Your task to perform on an android device: Go to wifi settings Image 0: 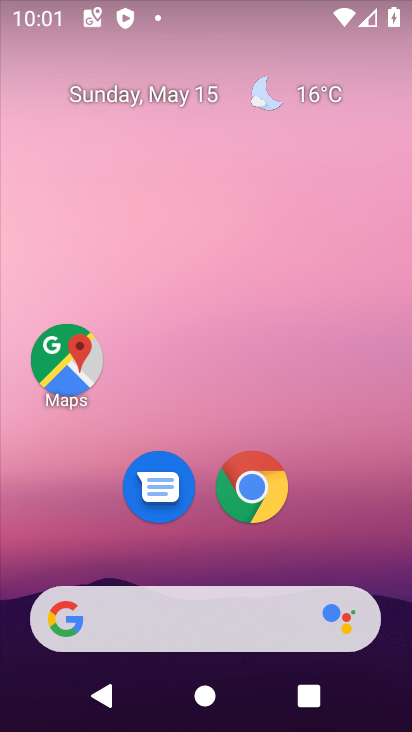
Step 0: drag from (399, 620) to (295, 18)
Your task to perform on an android device: Go to wifi settings Image 1: 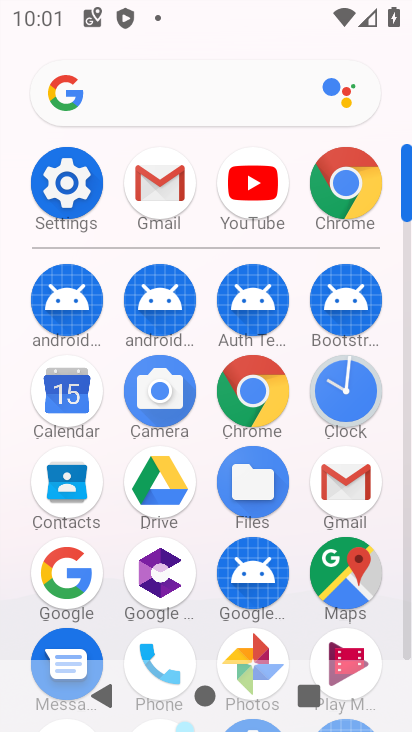
Step 1: click (408, 648)
Your task to perform on an android device: Go to wifi settings Image 2: 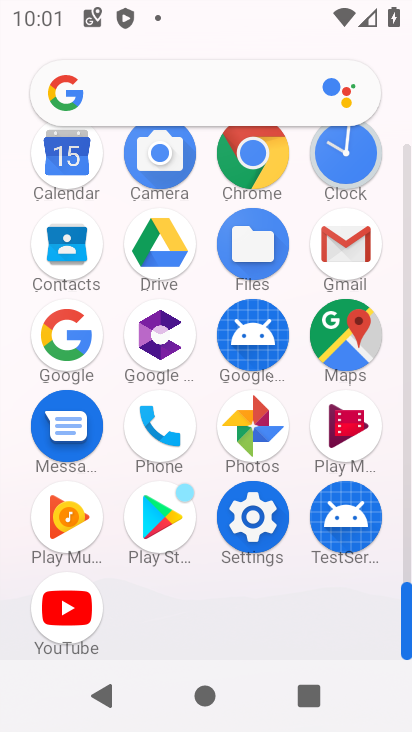
Step 2: click (252, 519)
Your task to perform on an android device: Go to wifi settings Image 3: 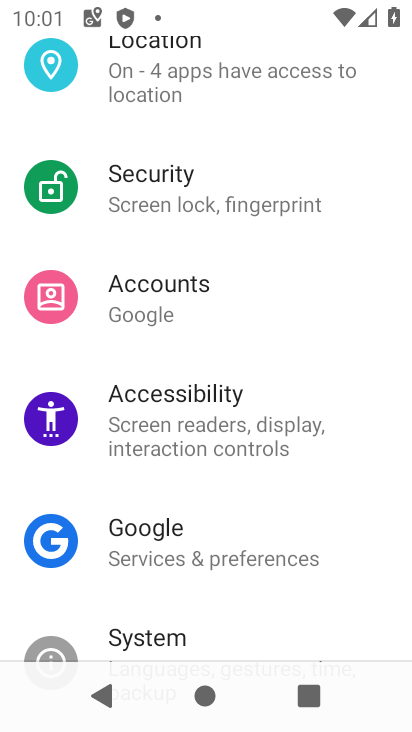
Step 3: drag from (360, 151) to (345, 422)
Your task to perform on an android device: Go to wifi settings Image 4: 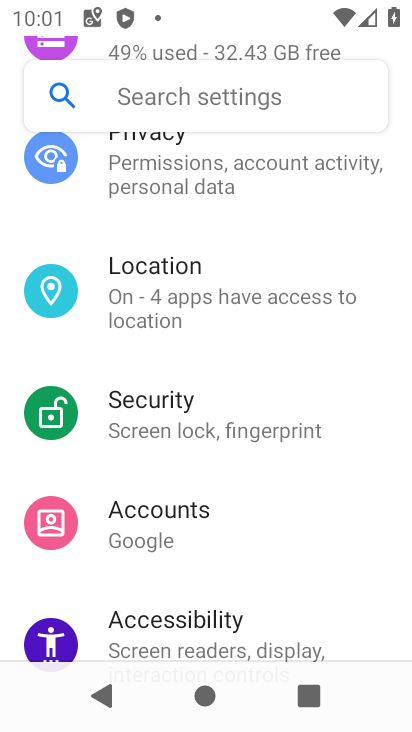
Step 4: drag from (370, 210) to (352, 471)
Your task to perform on an android device: Go to wifi settings Image 5: 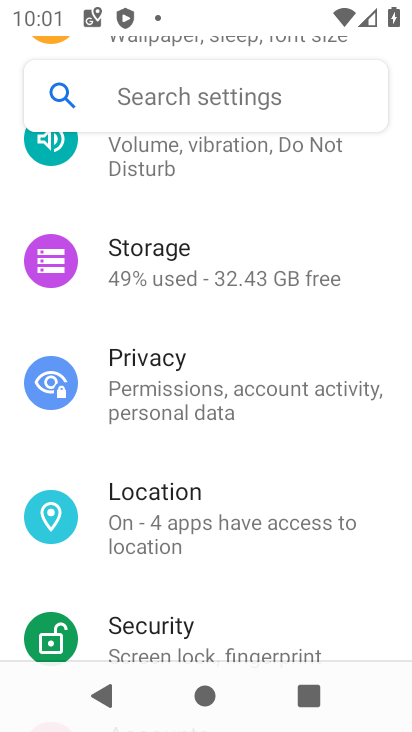
Step 5: drag from (357, 214) to (380, 478)
Your task to perform on an android device: Go to wifi settings Image 6: 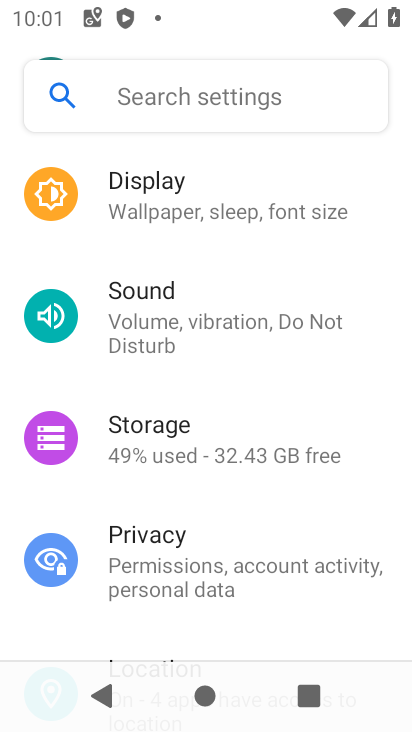
Step 6: drag from (349, 230) to (347, 467)
Your task to perform on an android device: Go to wifi settings Image 7: 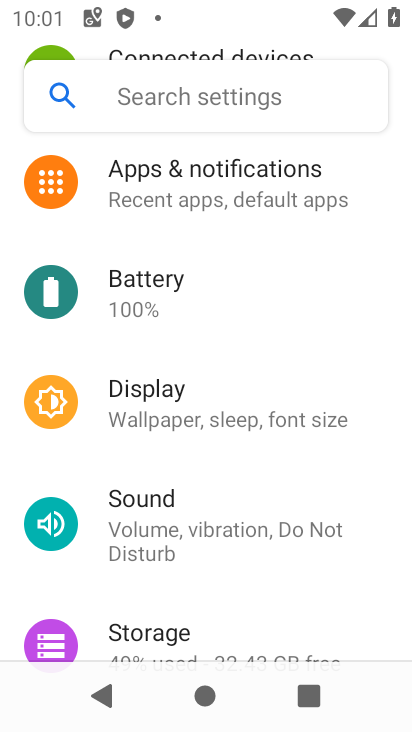
Step 7: drag from (368, 219) to (346, 528)
Your task to perform on an android device: Go to wifi settings Image 8: 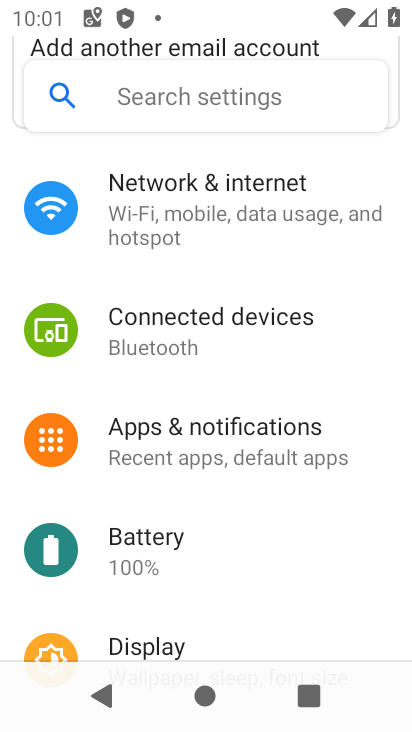
Step 8: click (141, 203)
Your task to perform on an android device: Go to wifi settings Image 9: 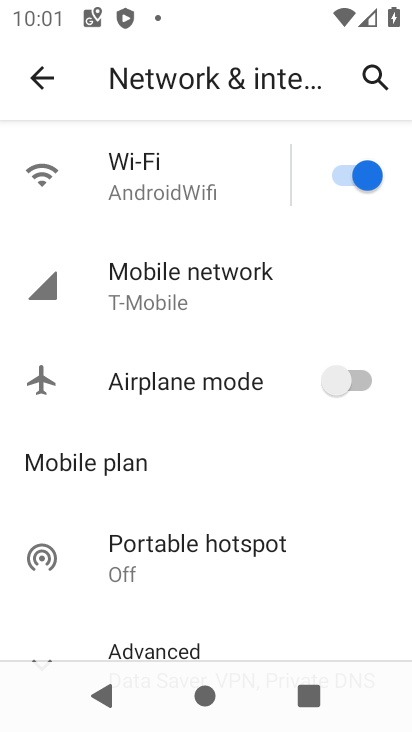
Step 9: click (59, 163)
Your task to perform on an android device: Go to wifi settings Image 10: 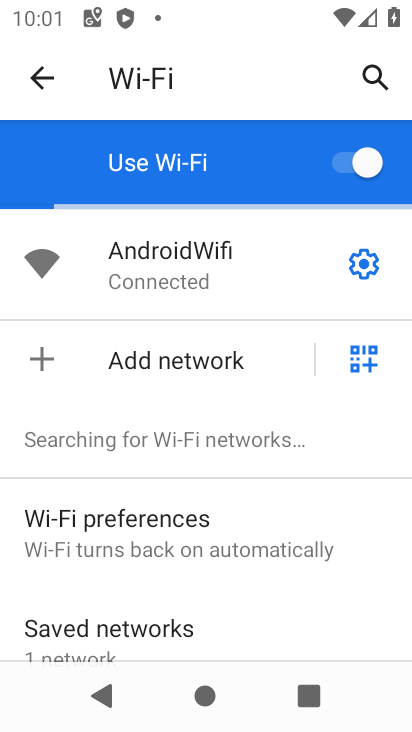
Step 10: drag from (339, 630) to (262, 228)
Your task to perform on an android device: Go to wifi settings Image 11: 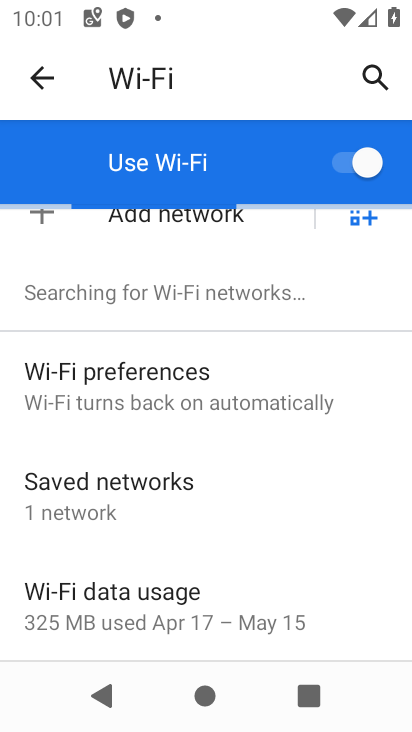
Step 11: drag from (302, 252) to (274, 636)
Your task to perform on an android device: Go to wifi settings Image 12: 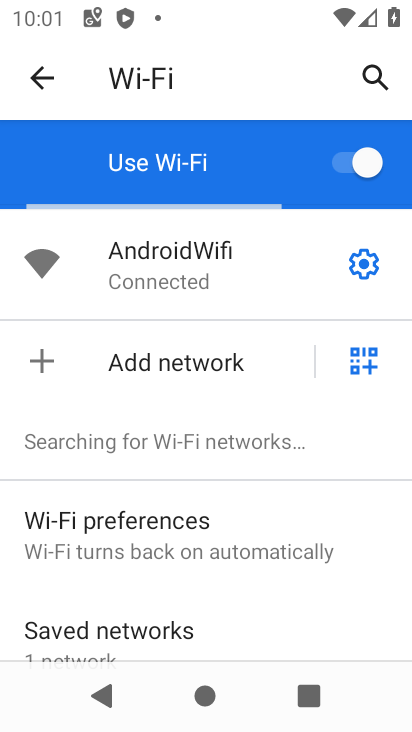
Step 12: click (363, 263)
Your task to perform on an android device: Go to wifi settings Image 13: 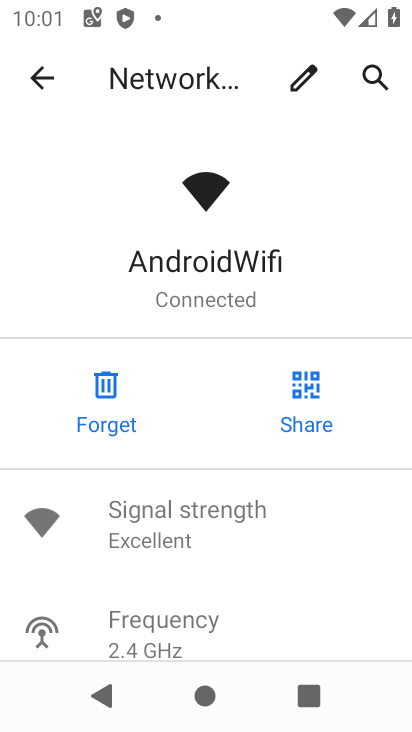
Step 13: drag from (240, 580) to (195, 186)
Your task to perform on an android device: Go to wifi settings Image 14: 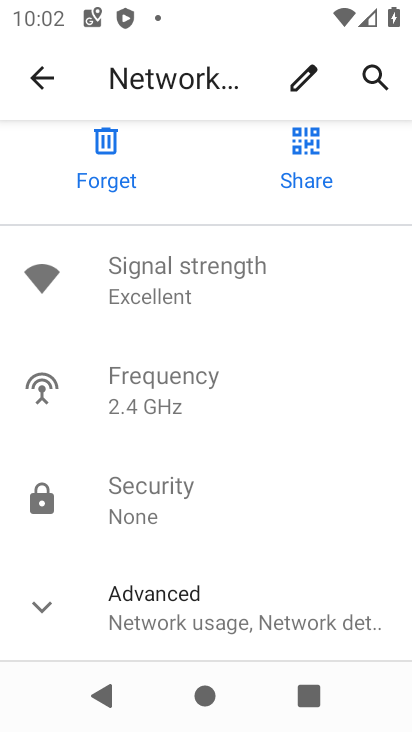
Step 14: click (37, 607)
Your task to perform on an android device: Go to wifi settings Image 15: 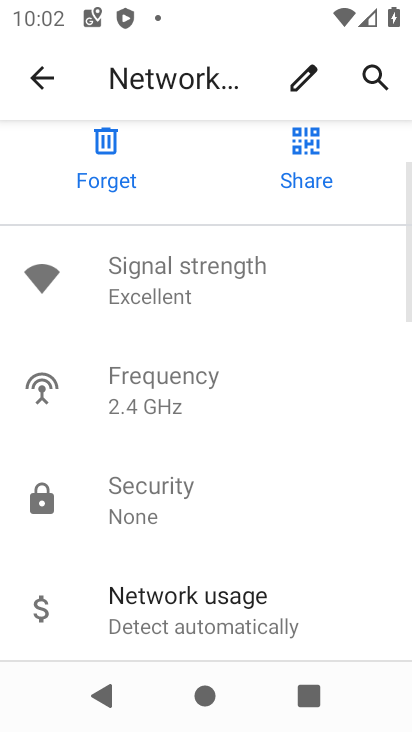
Step 15: task complete